Your task to perform on an android device: Open Google Maps Image 0: 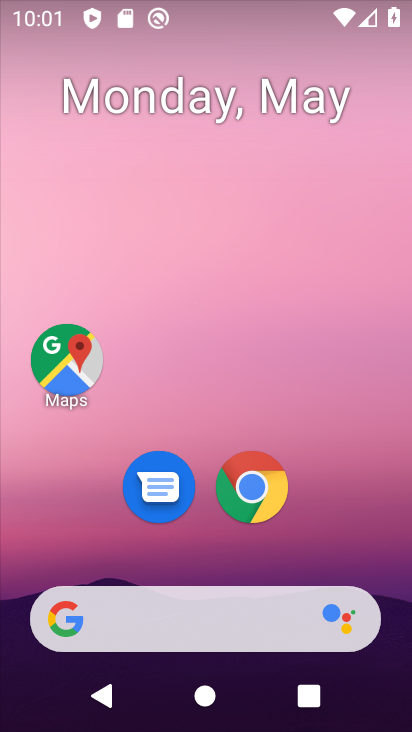
Step 0: click (55, 353)
Your task to perform on an android device: Open Google Maps Image 1: 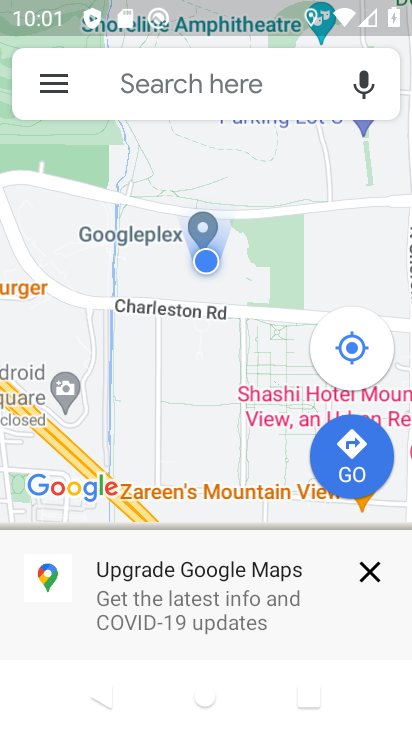
Step 1: task complete